Your task to perform on an android device: Search for pizza restaurants on Maps Image 0: 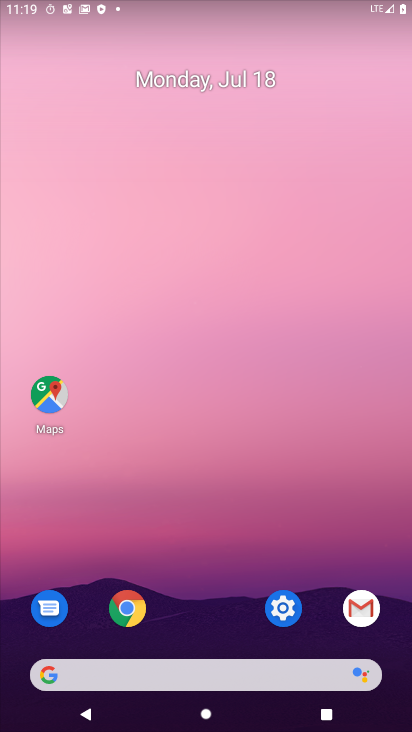
Step 0: press home button
Your task to perform on an android device: Search for pizza restaurants on Maps Image 1: 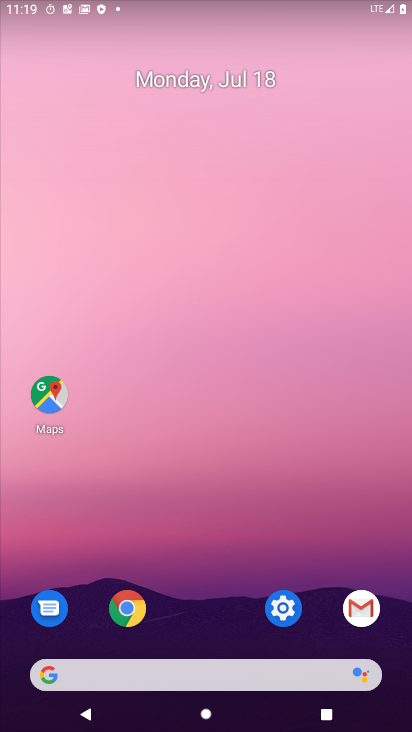
Step 1: click (53, 378)
Your task to perform on an android device: Search for pizza restaurants on Maps Image 2: 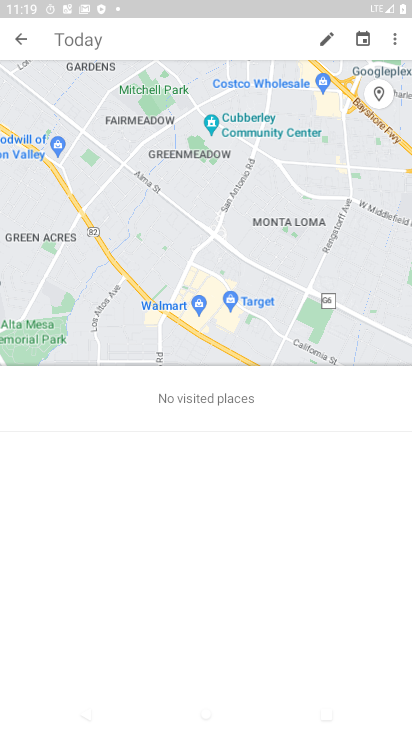
Step 2: click (20, 42)
Your task to perform on an android device: Search for pizza restaurants on Maps Image 3: 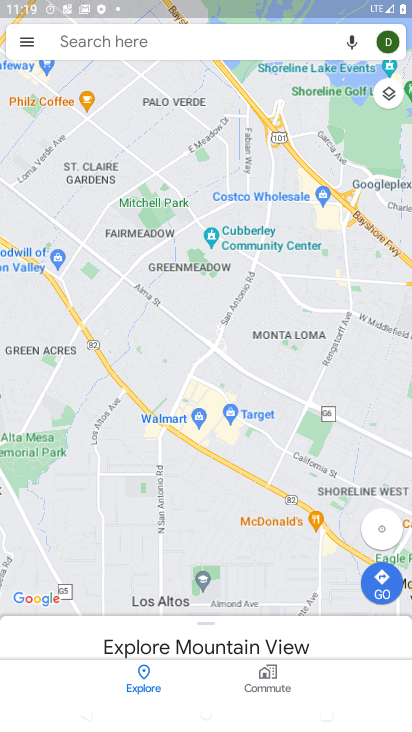
Step 3: click (91, 38)
Your task to perform on an android device: Search for pizza restaurants on Maps Image 4: 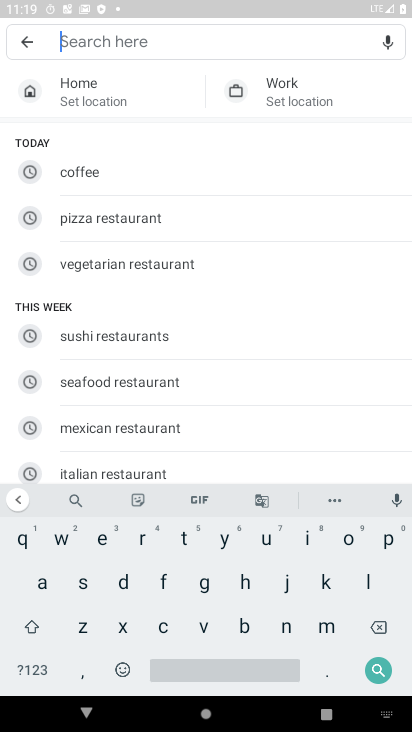
Step 4: click (96, 215)
Your task to perform on an android device: Search for pizza restaurants on Maps Image 5: 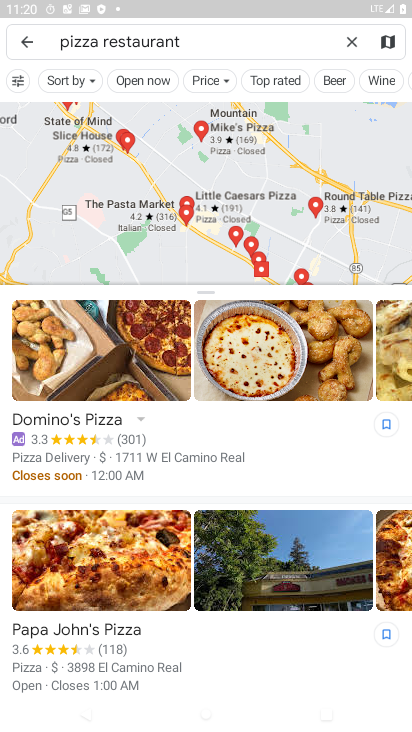
Step 5: task complete